Your task to perform on an android device: toggle wifi Image 0: 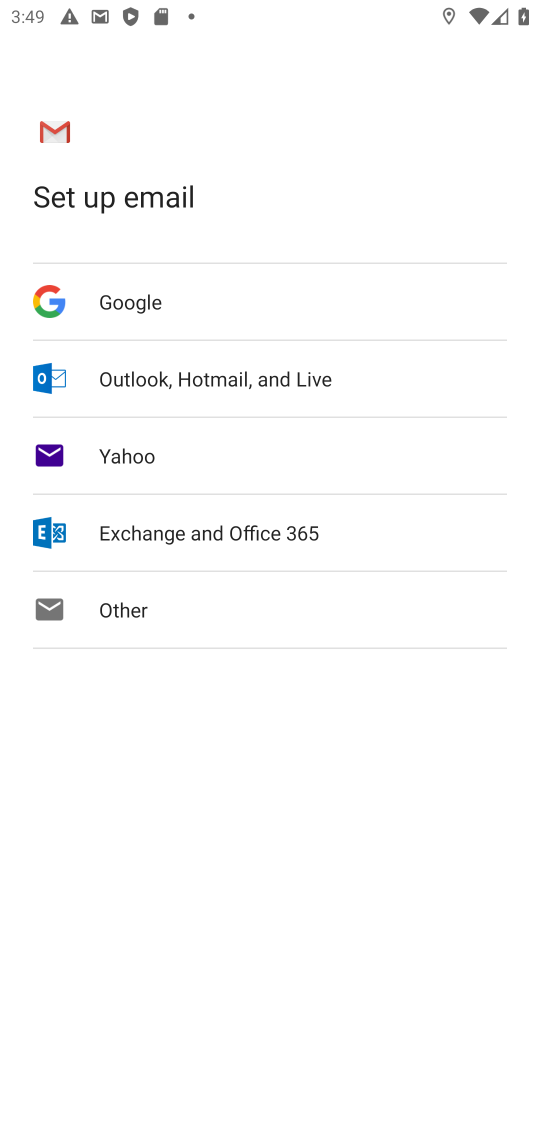
Step 0: press home button
Your task to perform on an android device: toggle wifi Image 1: 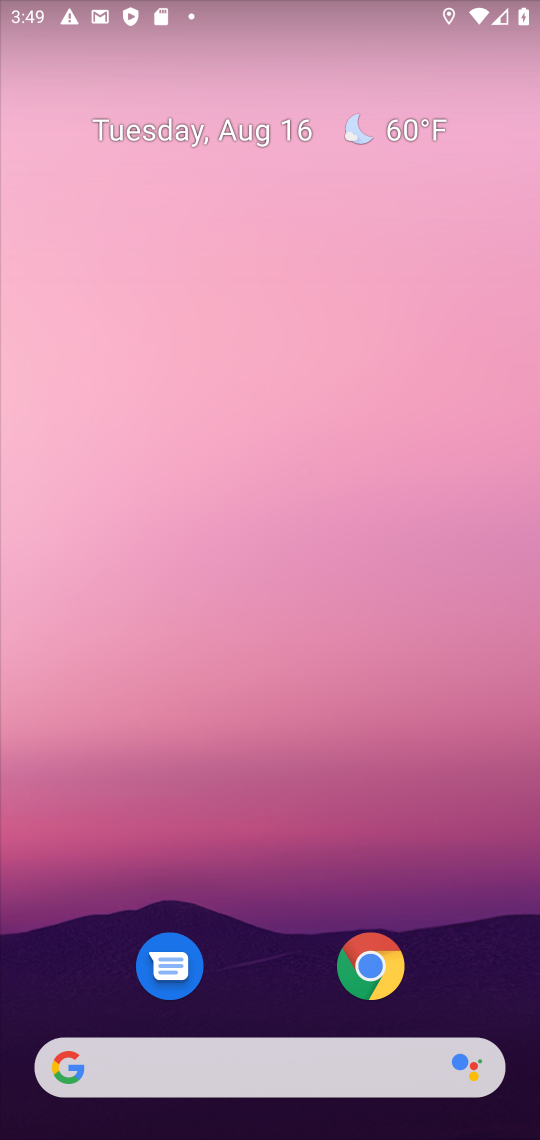
Step 1: drag from (15, 1110) to (365, 342)
Your task to perform on an android device: toggle wifi Image 2: 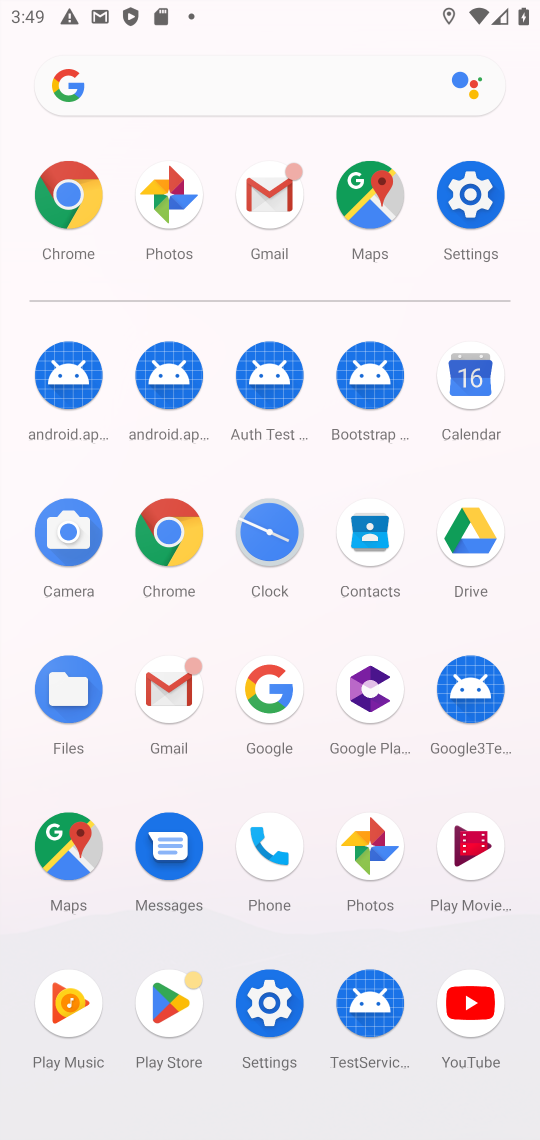
Step 2: click (266, 998)
Your task to perform on an android device: toggle wifi Image 3: 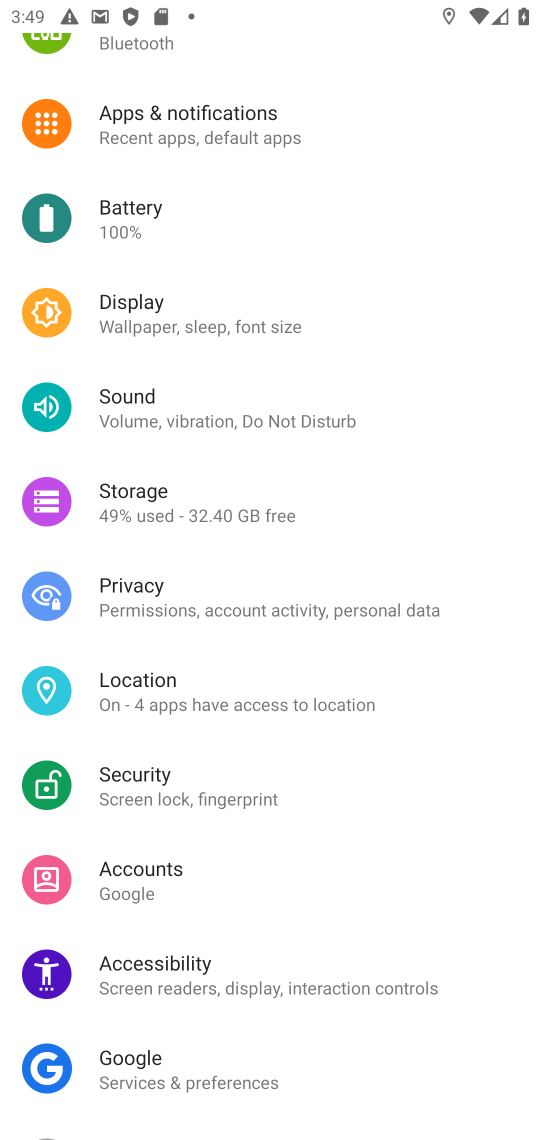
Step 3: drag from (384, 97) to (464, 741)
Your task to perform on an android device: toggle wifi Image 4: 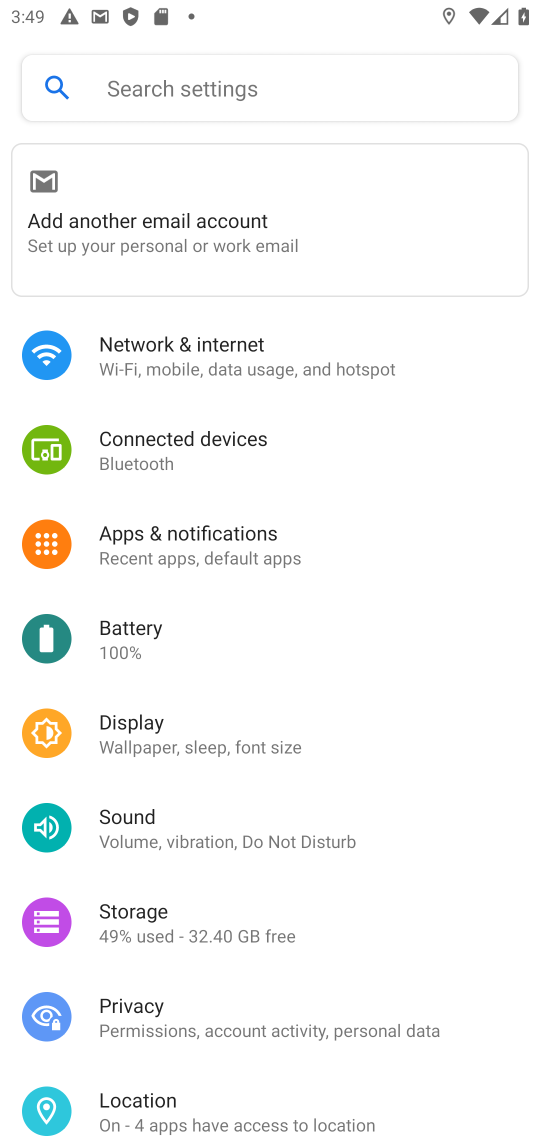
Step 4: click (134, 364)
Your task to perform on an android device: toggle wifi Image 5: 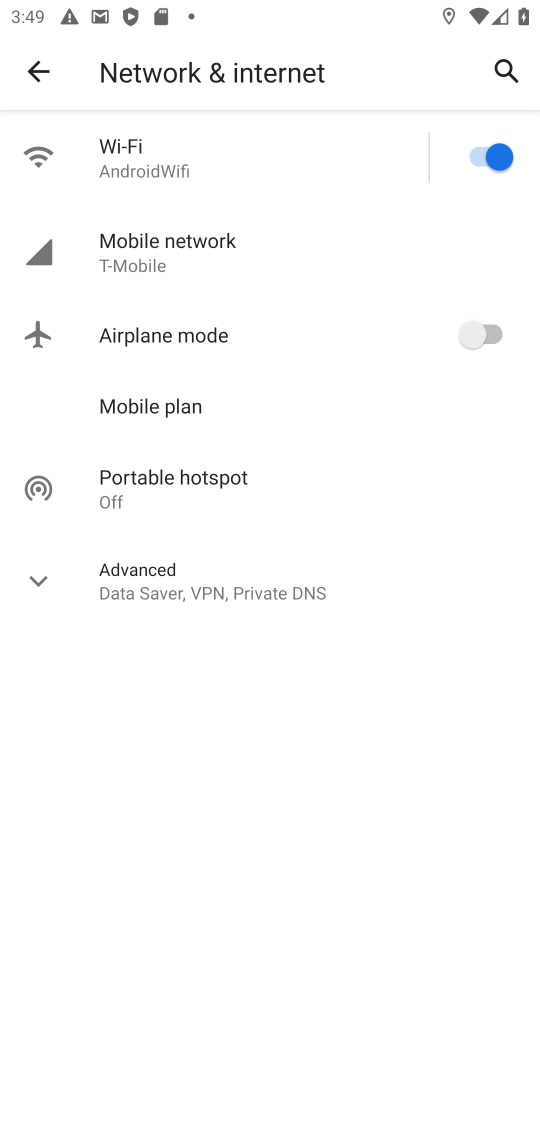
Step 5: task complete